Your task to perform on an android device: snooze an email in the gmail app Image 0: 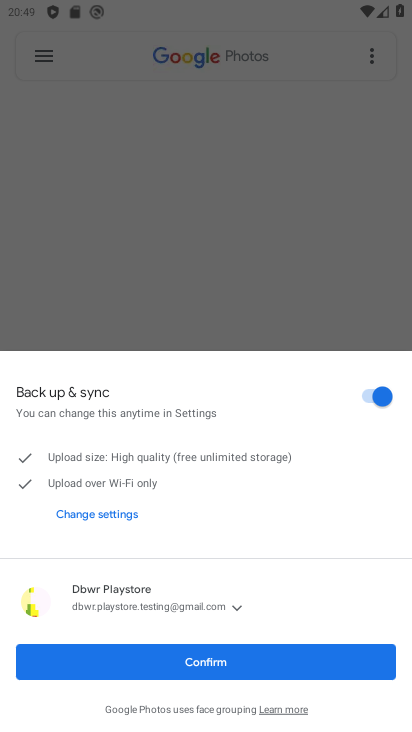
Step 0: press back button
Your task to perform on an android device: snooze an email in the gmail app Image 1: 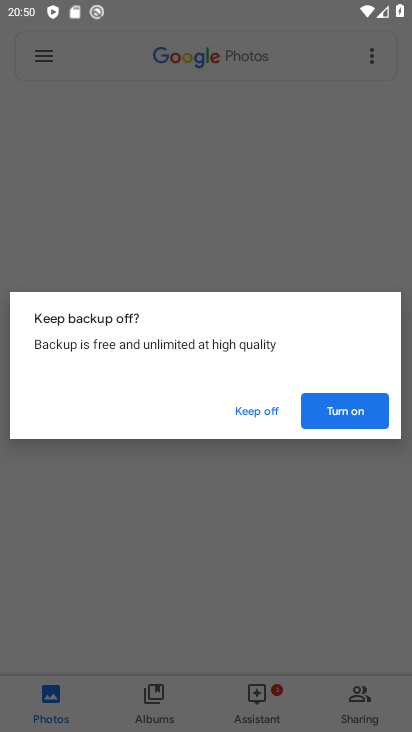
Step 1: press back button
Your task to perform on an android device: snooze an email in the gmail app Image 2: 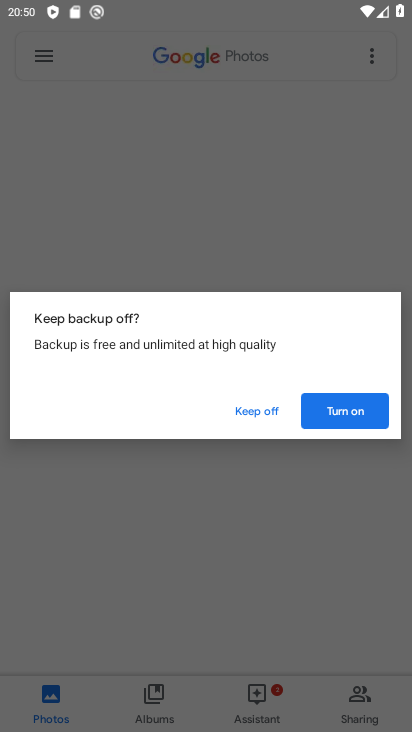
Step 2: press home button
Your task to perform on an android device: snooze an email in the gmail app Image 3: 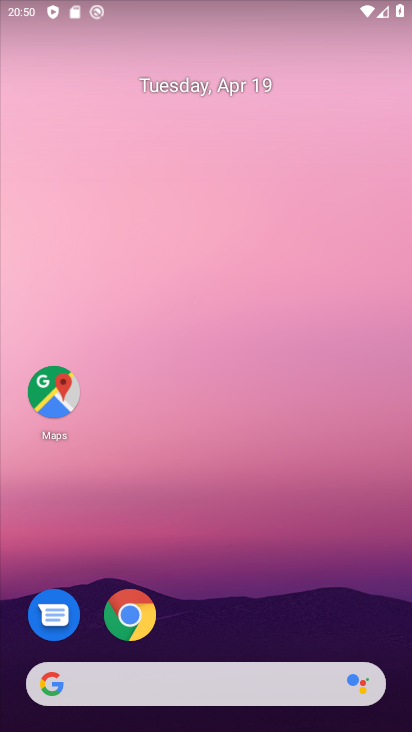
Step 3: drag from (192, 666) to (262, 260)
Your task to perform on an android device: snooze an email in the gmail app Image 4: 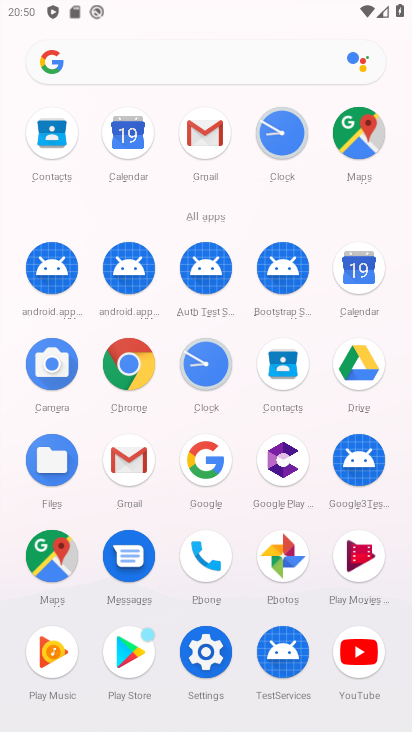
Step 4: click (201, 125)
Your task to perform on an android device: snooze an email in the gmail app Image 5: 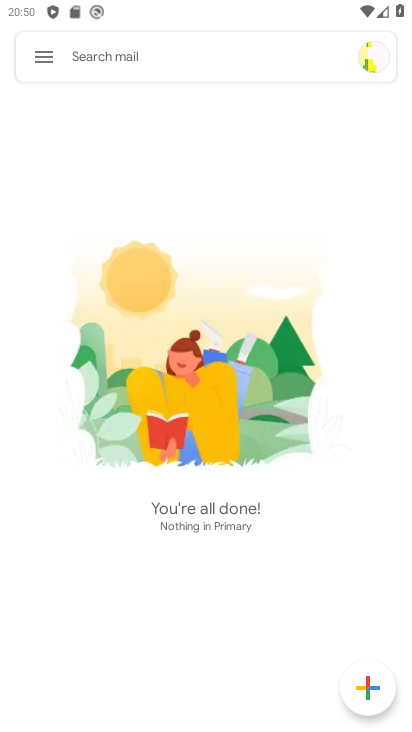
Step 5: click (41, 55)
Your task to perform on an android device: snooze an email in the gmail app Image 6: 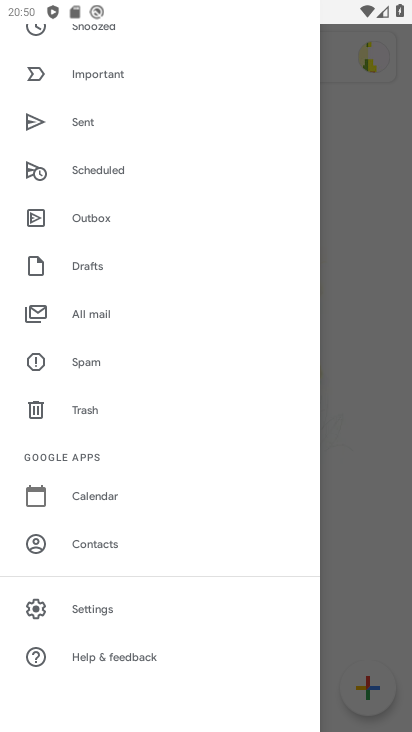
Step 6: click (87, 318)
Your task to perform on an android device: snooze an email in the gmail app Image 7: 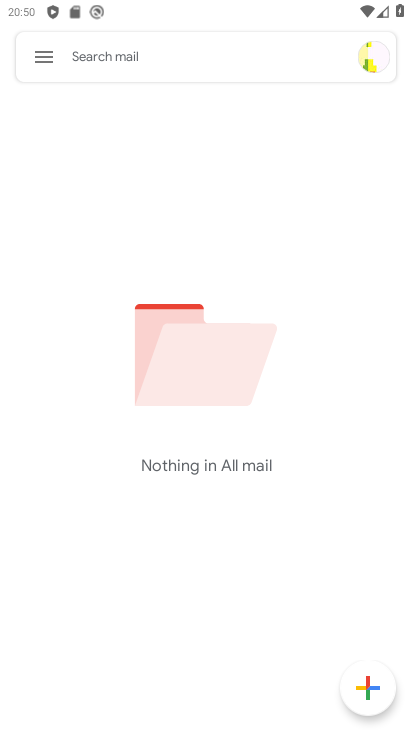
Step 7: task complete